Your task to perform on an android device: allow notifications from all sites in the chrome app Image 0: 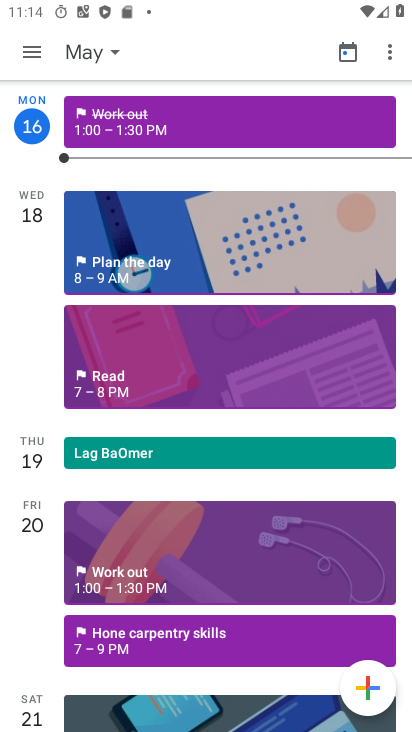
Step 0: press home button
Your task to perform on an android device: allow notifications from all sites in the chrome app Image 1: 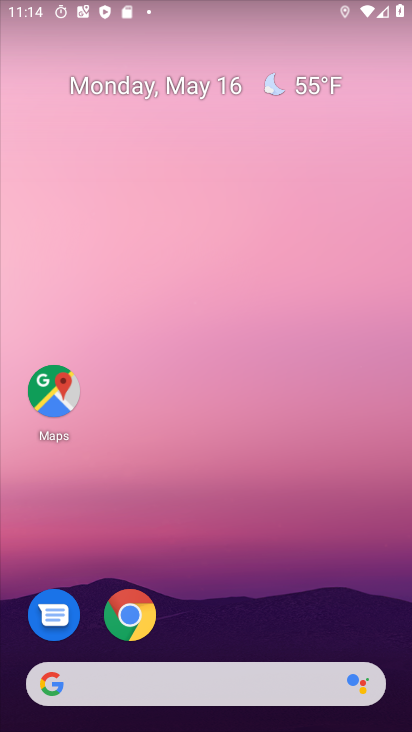
Step 1: click (128, 610)
Your task to perform on an android device: allow notifications from all sites in the chrome app Image 2: 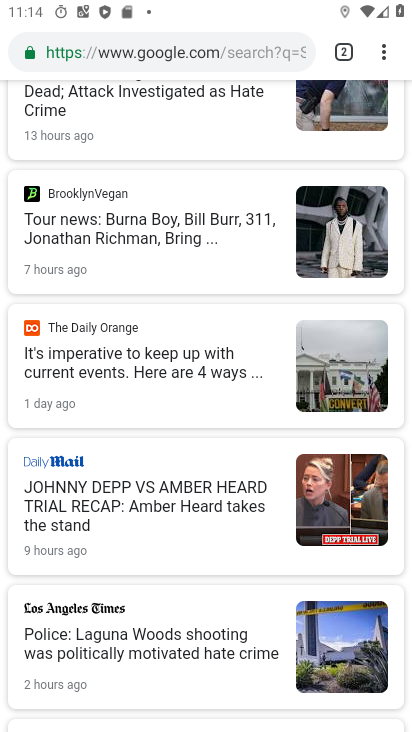
Step 2: drag from (383, 50) to (197, 580)
Your task to perform on an android device: allow notifications from all sites in the chrome app Image 3: 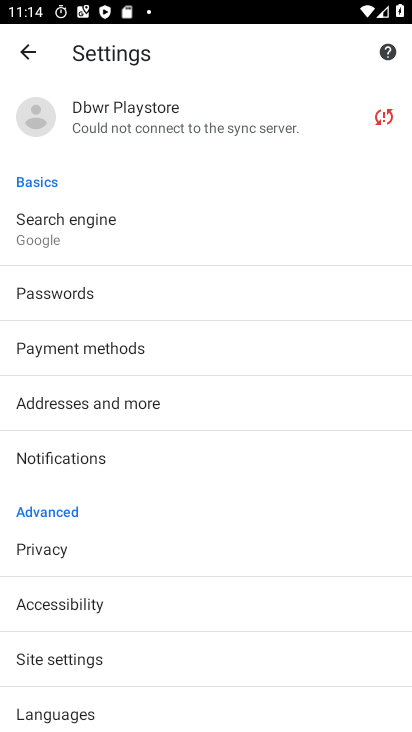
Step 3: click (86, 653)
Your task to perform on an android device: allow notifications from all sites in the chrome app Image 4: 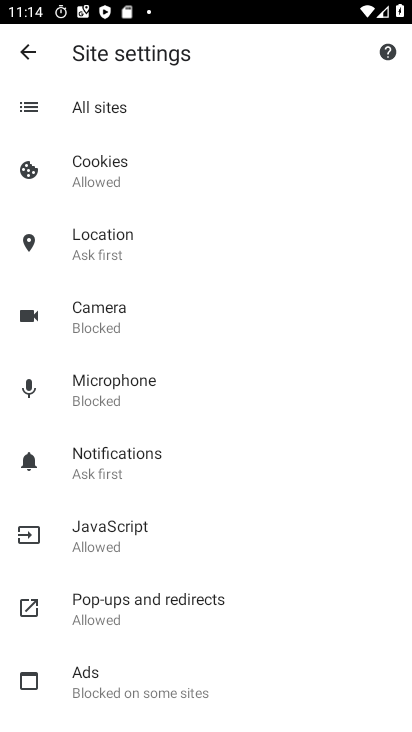
Step 4: click (97, 114)
Your task to perform on an android device: allow notifications from all sites in the chrome app Image 5: 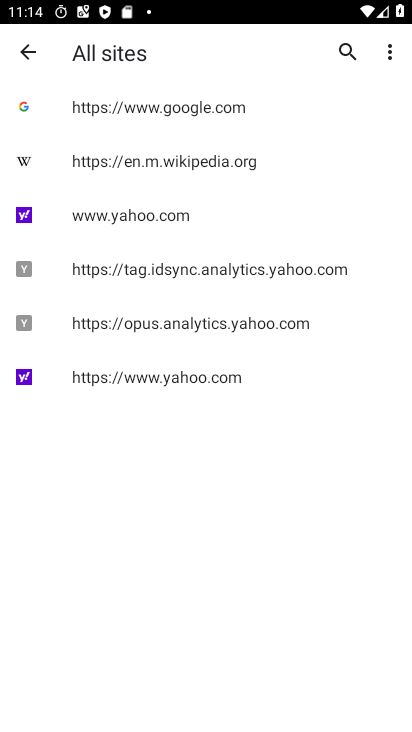
Step 5: click (164, 106)
Your task to perform on an android device: allow notifications from all sites in the chrome app Image 6: 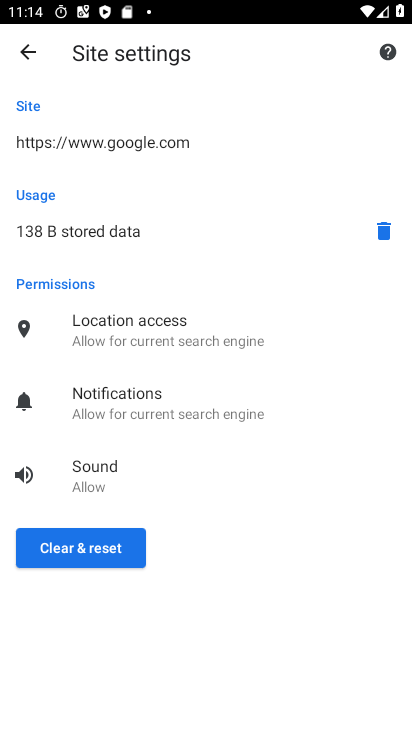
Step 6: click (140, 413)
Your task to perform on an android device: allow notifications from all sites in the chrome app Image 7: 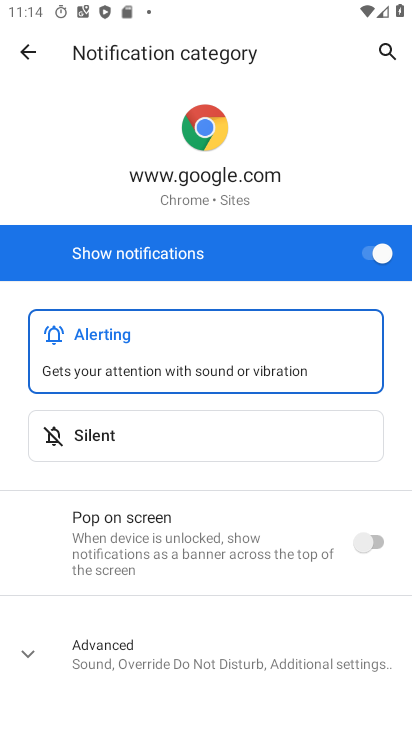
Step 7: task complete